Your task to perform on an android device: change notifications settings Image 0: 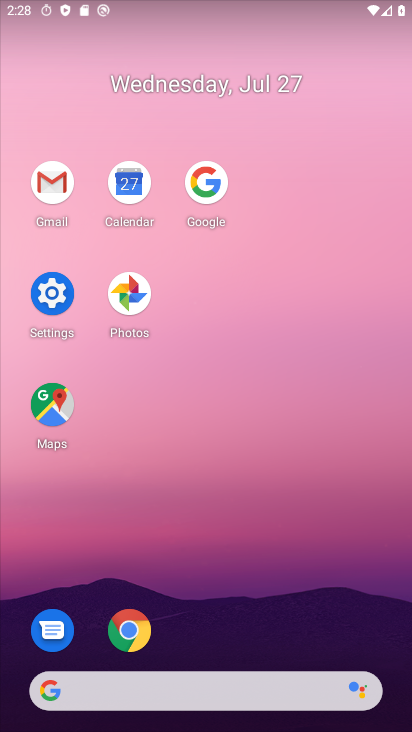
Step 0: click (55, 294)
Your task to perform on an android device: change notifications settings Image 1: 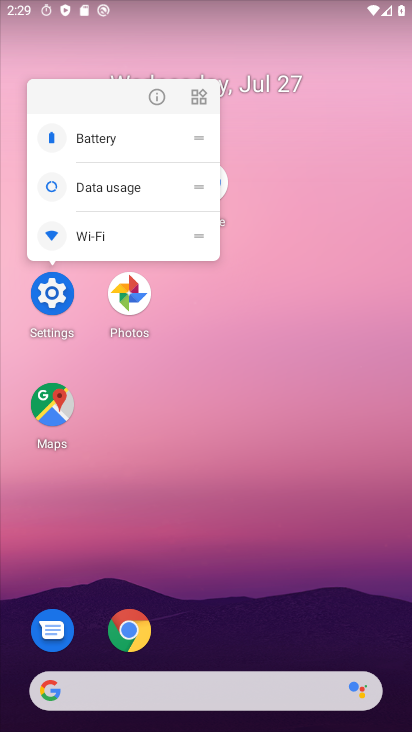
Step 1: click (55, 294)
Your task to perform on an android device: change notifications settings Image 2: 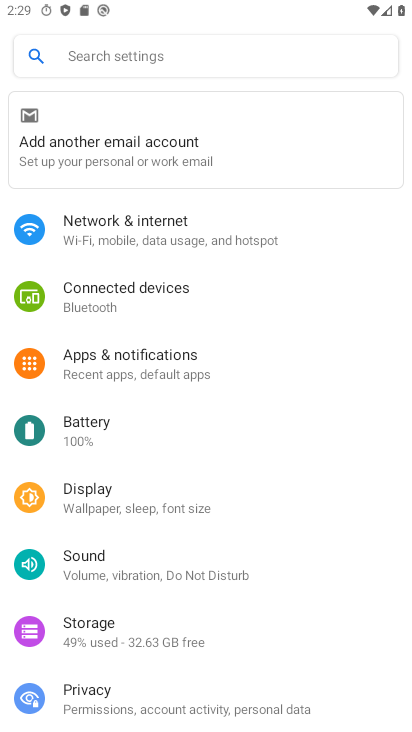
Step 2: click (209, 380)
Your task to perform on an android device: change notifications settings Image 3: 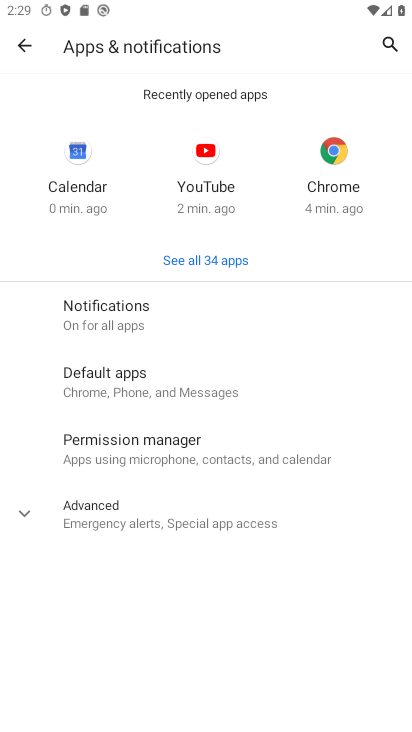
Step 3: click (174, 325)
Your task to perform on an android device: change notifications settings Image 4: 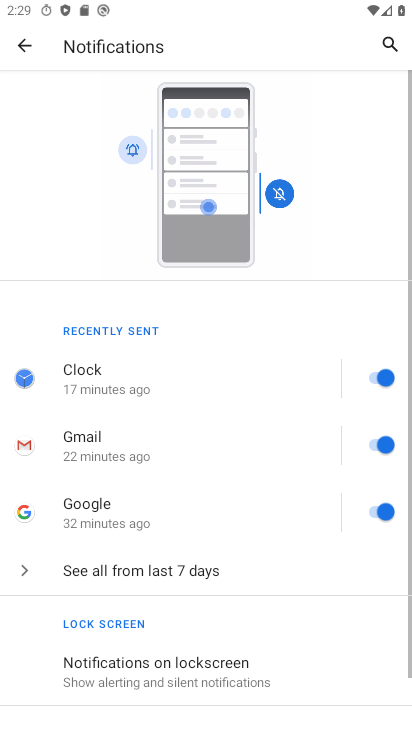
Step 4: drag from (209, 540) to (175, 217)
Your task to perform on an android device: change notifications settings Image 5: 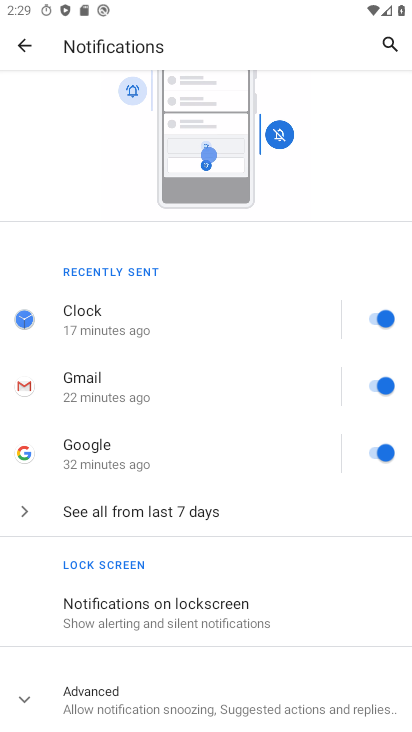
Step 5: click (224, 699)
Your task to perform on an android device: change notifications settings Image 6: 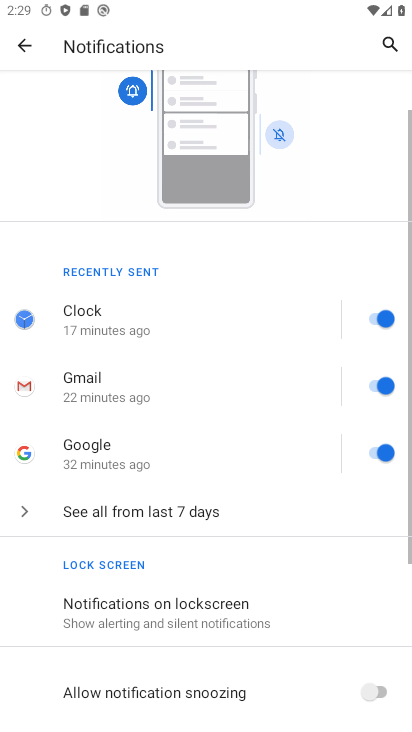
Step 6: drag from (204, 637) to (153, 260)
Your task to perform on an android device: change notifications settings Image 7: 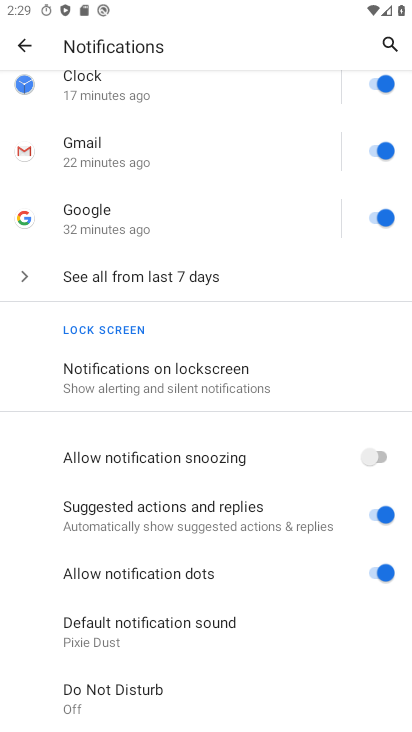
Step 7: click (378, 469)
Your task to perform on an android device: change notifications settings Image 8: 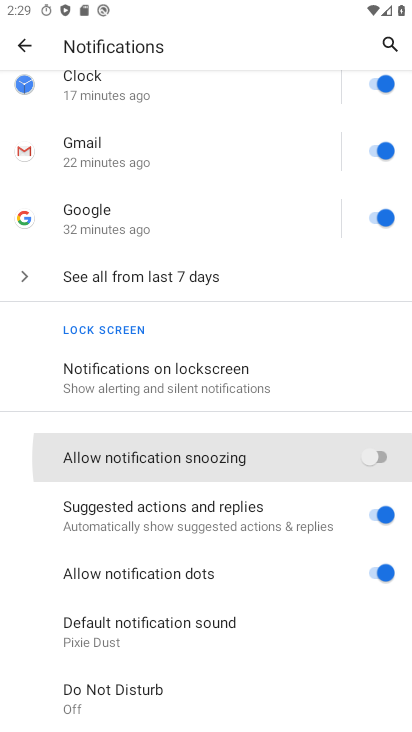
Step 8: click (390, 510)
Your task to perform on an android device: change notifications settings Image 9: 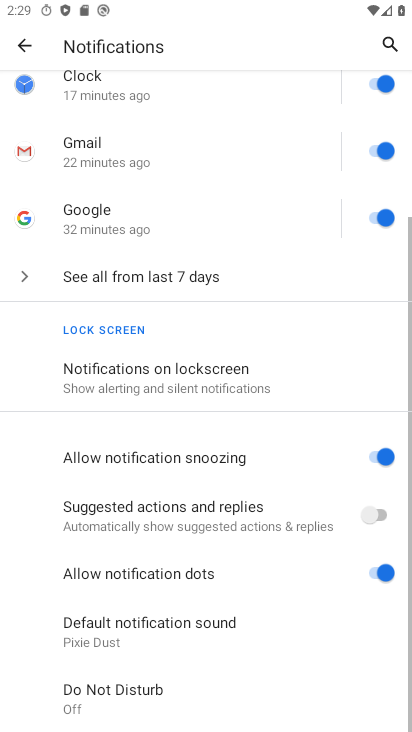
Step 9: click (392, 575)
Your task to perform on an android device: change notifications settings Image 10: 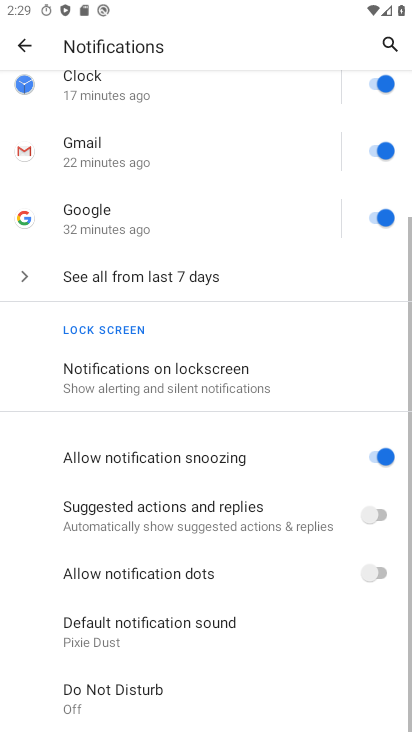
Step 10: task complete